Your task to perform on an android device: Go to display settings Image 0: 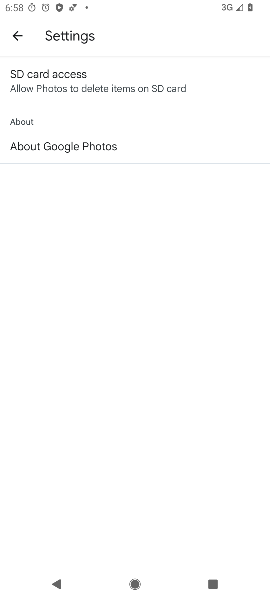
Step 0: press home button
Your task to perform on an android device: Go to display settings Image 1: 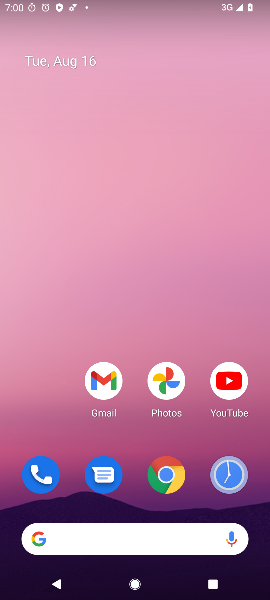
Step 1: drag from (58, 449) to (53, 79)
Your task to perform on an android device: Go to display settings Image 2: 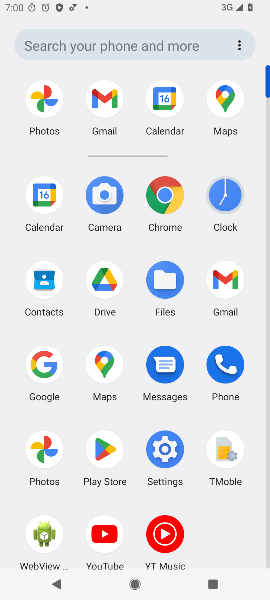
Step 2: click (164, 458)
Your task to perform on an android device: Go to display settings Image 3: 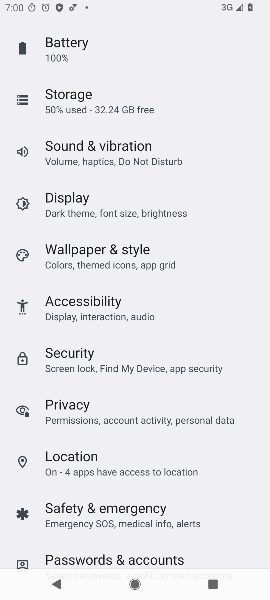
Step 3: drag from (103, 110) to (81, 556)
Your task to perform on an android device: Go to display settings Image 4: 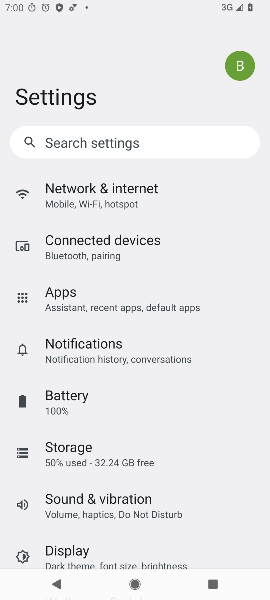
Step 4: click (84, 554)
Your task to perform on an android device: Go to display settings Image 5: 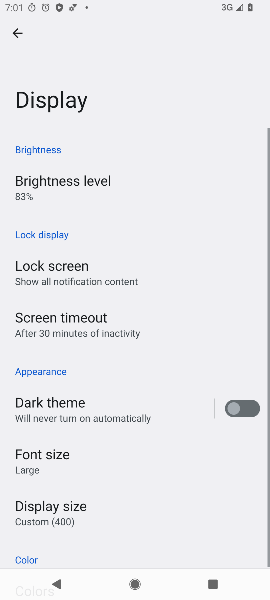
Step 5: task complete